Your task to perform on an android device: What's the weather today? Image 0: 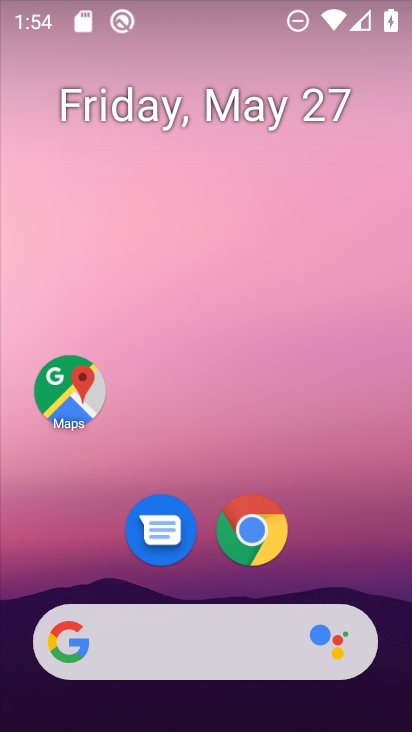
Step 0: click (244, 634)
Your task to perform on an android device: What's the weather today? Image 1: 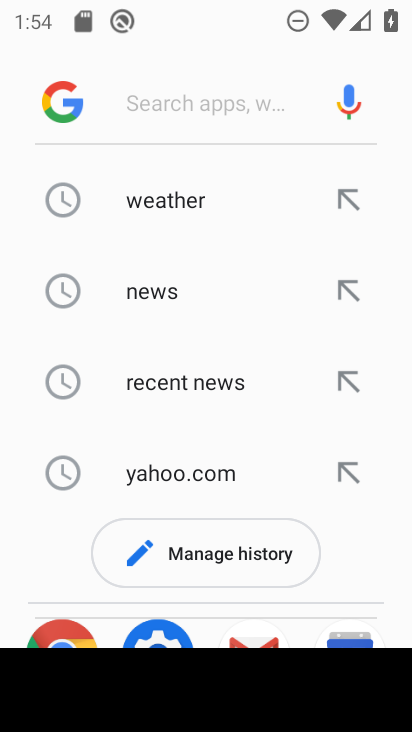
Step 1: click (178, 202)
Your task to perform on an android device: What's the weather today? Image 2: 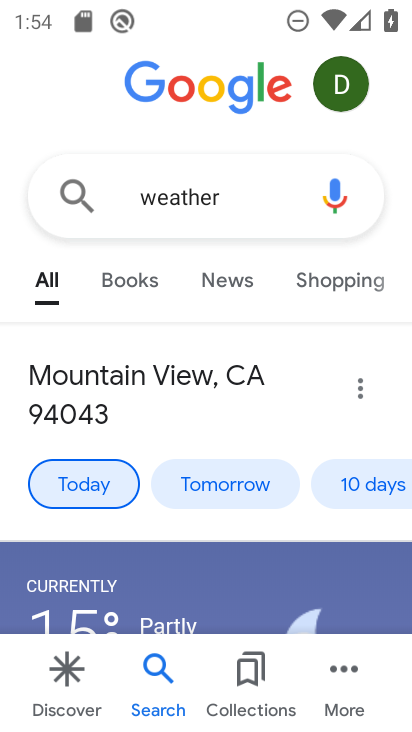
Step 2: task complete